Your task to perform on an android device: turn on sleep mode Image 0: 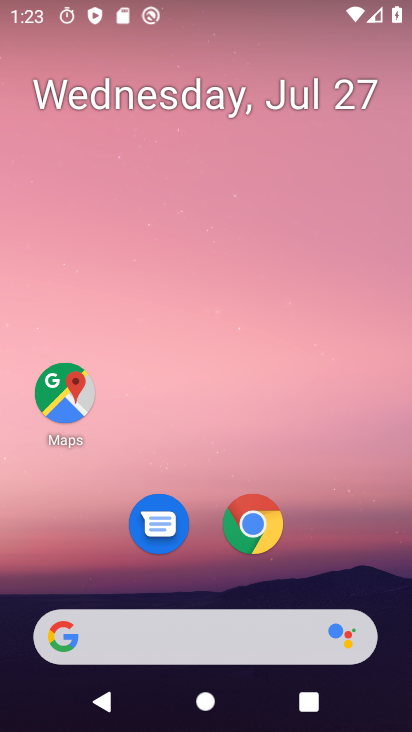
Step 0: drag from (326, 510) to (327, 85)
Your task to perform on an android device: turn on sleep mode Image 1: 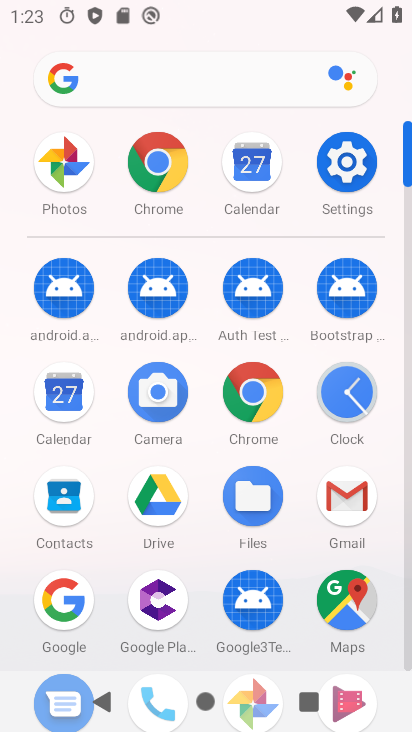
Step 1: click (354, 162)
Your task to perform on an android device: turn on sleep mode Image 2: 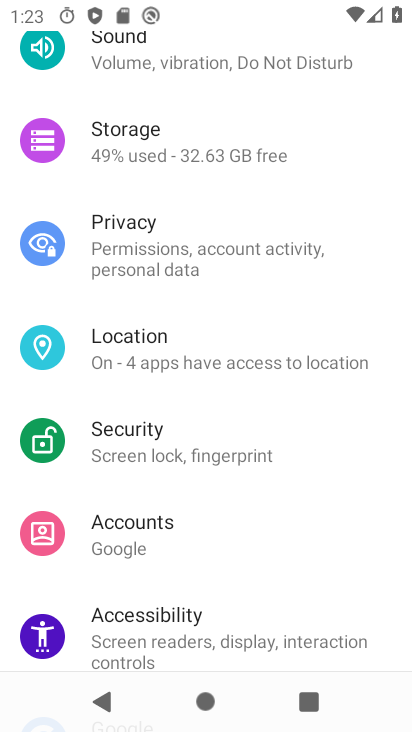
Step 2: drag from (224, 123) to (212, 525)
Your task to perform on an android device: turn on sleep mode Image 3: 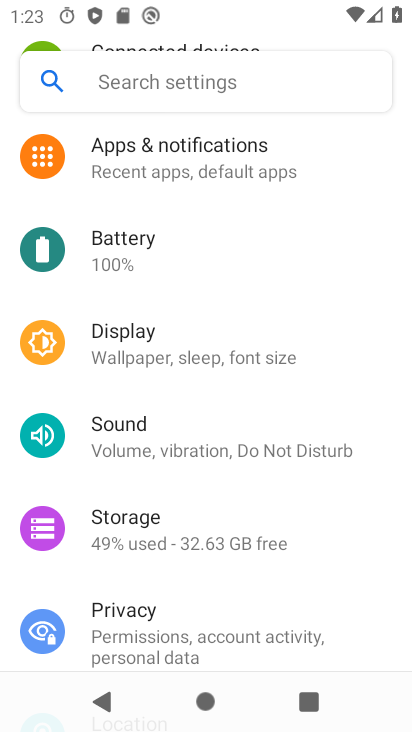
Step 3: click (194, 360)
Your task to perform on an android device: turn on sleep mode Image 4: 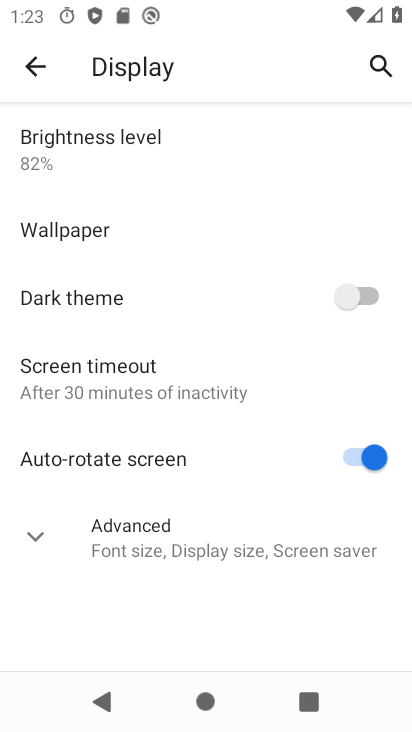
Step 4: click (34, 533)
Your task to perform on an android device: turn on sleep mode Image 5: 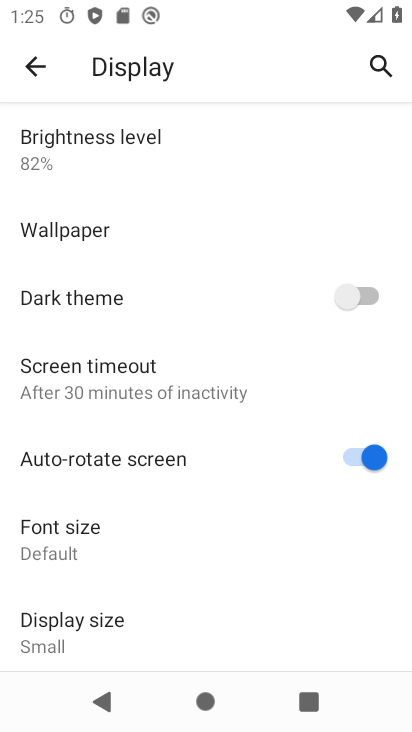
Step 5: task complete